Your task to perform on an android device: Do I have any events today? Image 0: 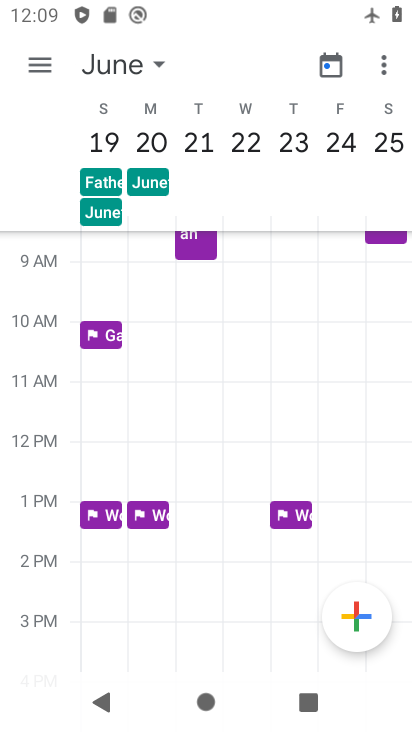
Step 0: click (102, 55)
Your task to perform on an android device: Do I have any events today? Image 1: 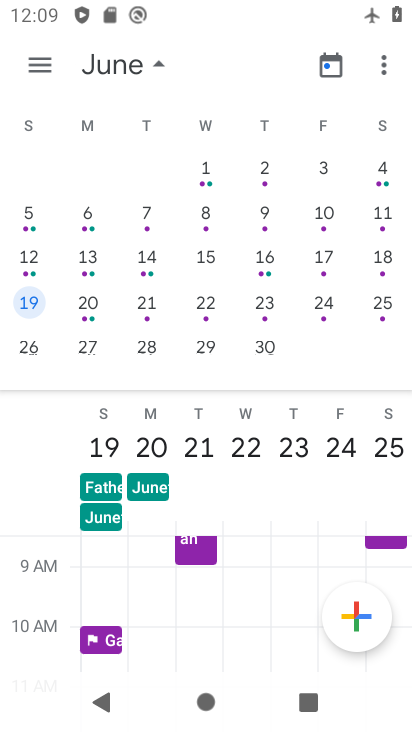
Step 1: drag from (32, 247) to (391, 288)
Your task to perform on an android device: Do I have any events today? Image 2: 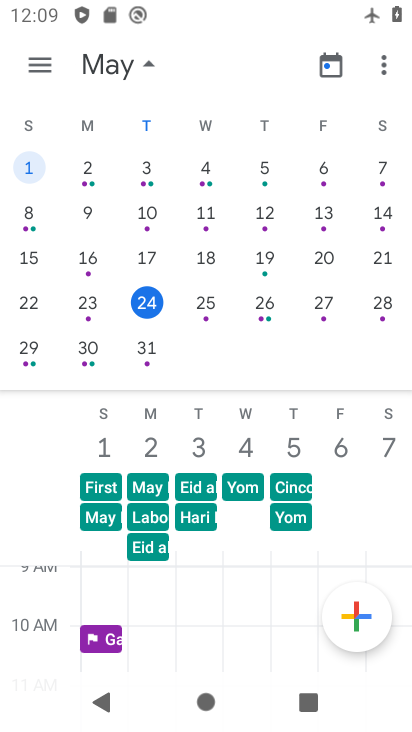
Step 2: click (215, 301)
Your task to perform on an android device: Do I have any events today? Image 3: 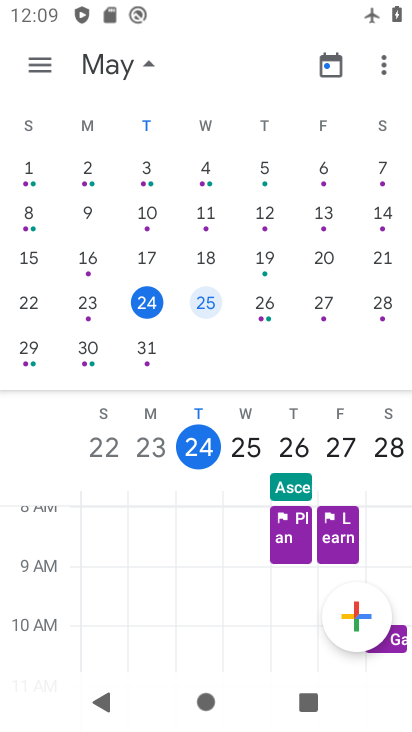
Step 3: click (252, 441)
Your task to perform on an android device: Do I have any events today? Image 4: 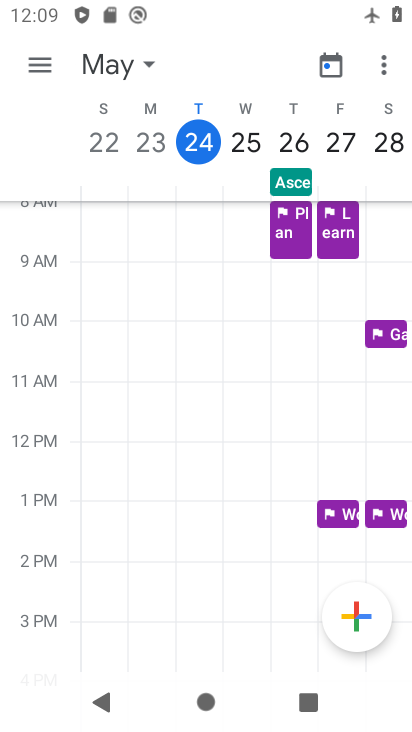
Step 4: task complete